Your task to perform on an android device: clear history in the chrome app Image 0: 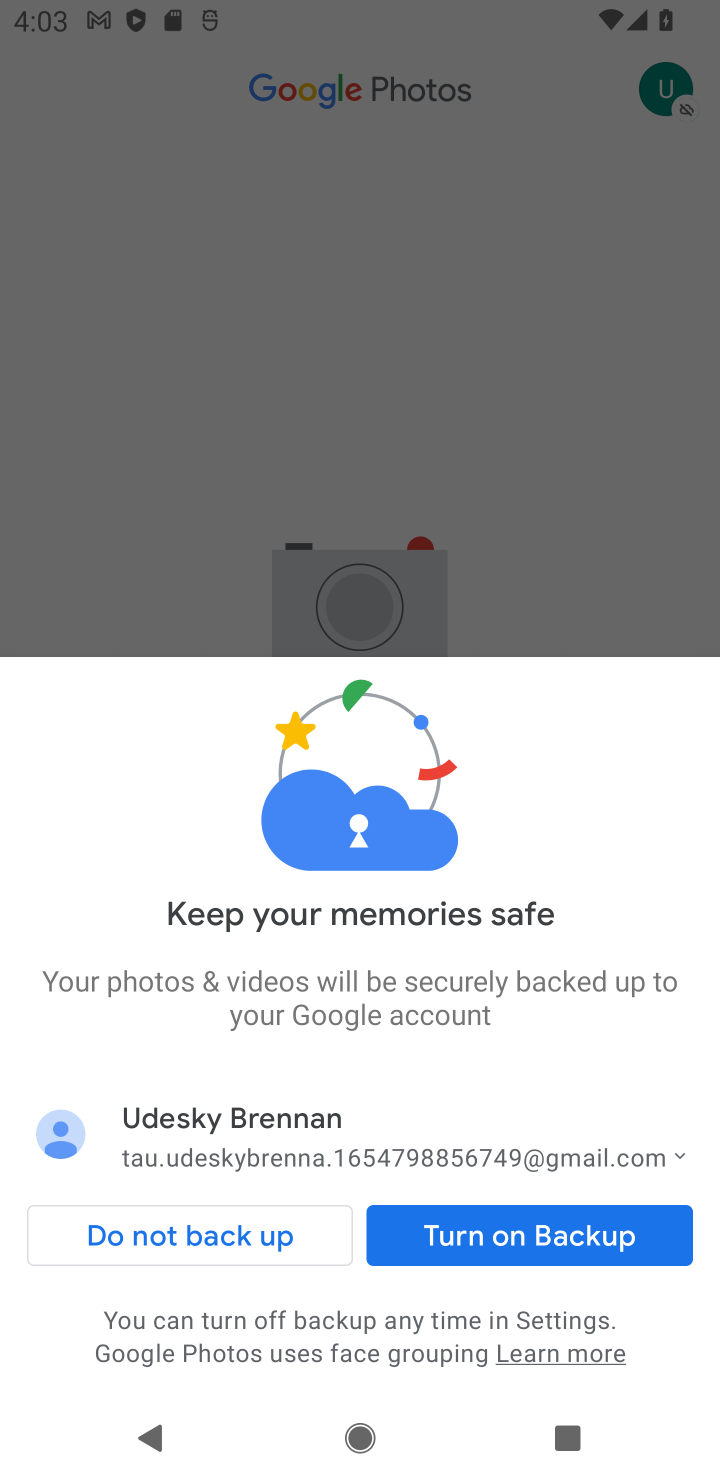
Step 0: task complete